Your task to perform on an android device: check data usage Image 0: 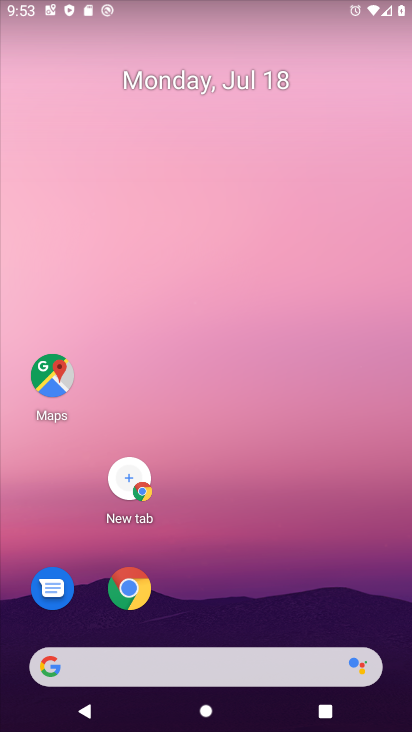
Step 0: drag from (251, 14) to (216, 692)
Your task to perform on an android device: check data usage Image 1: 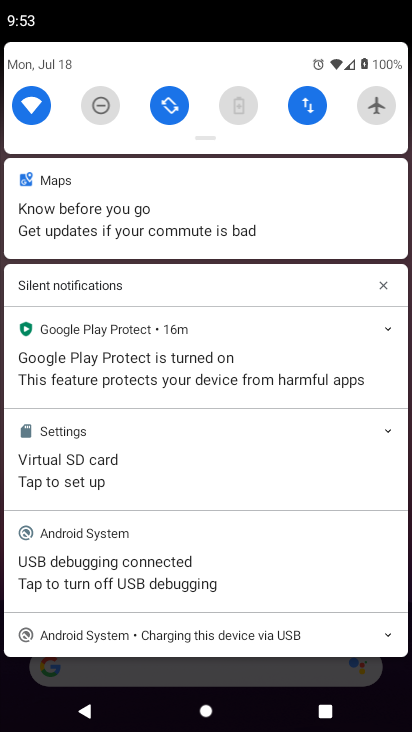
Step 1: click (294, 109)
Your task to perform on an android device: check data usage Image 2: 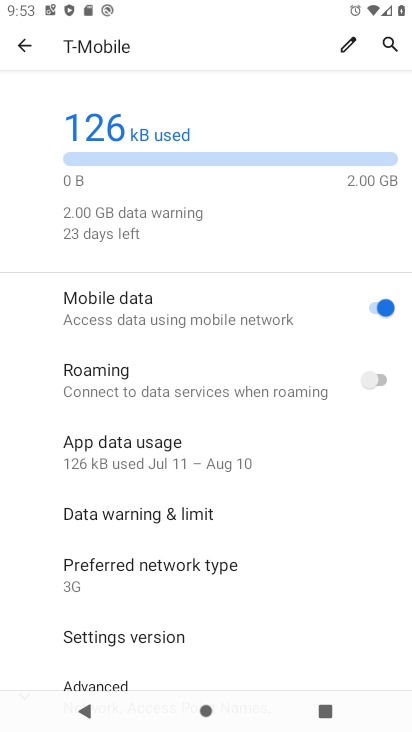
Step 2: task complete